Your task to perform on an android device: Search for the new nike air max 270 on Nike.com Image 0: 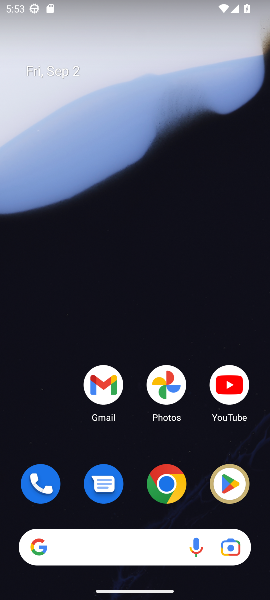
Step 0: click (174, 482)
Your task to perform on an android device: Search for the new nike air max 270 on Nike.com Image 1: 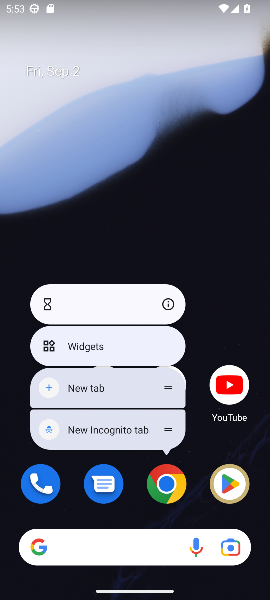
Step 1: click (169, 482)
Your task to perform on an android device: Search for the new nike air max 270 on Nike.com Image 2: 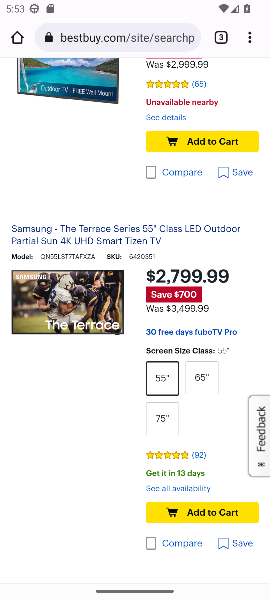
Step 2: click (147, 37)
Your task to perform on an android device: Search for the new nike air max 270 on Nike.com Image 3: 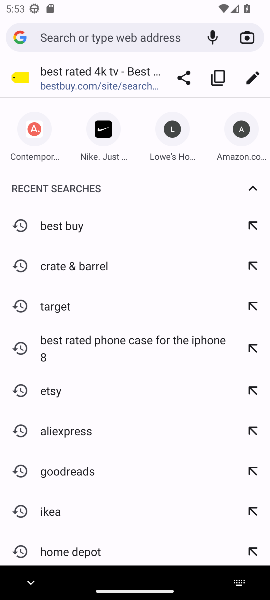
Step 3: type "Nike.com"
Your task to perform on an android device: Search for the new nike air max 270 on Nike.com Image 4: 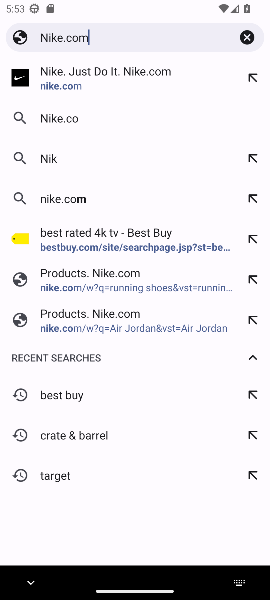
Step 4: press enter
Your task to perform on an android device: Search for the new nike air max 270 on Nike.com Image 5: 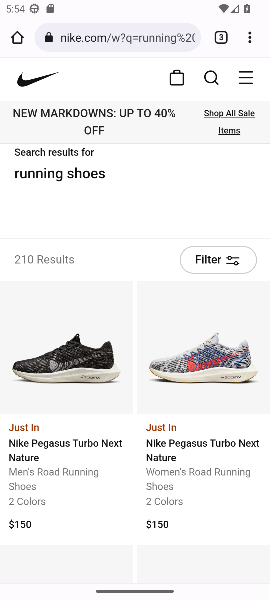
Step 5: click (209, 76)
Your task to perform on an android device: Search for the new nike air max 270 on Nike.com Image 6: 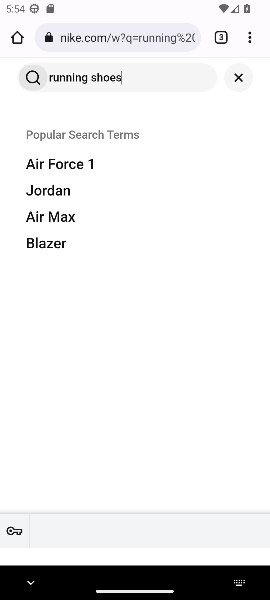
Step 6: click (238, 78)
Your task to perform on an android device: Search for the new nike air max 270 on Nike.com Image 7: 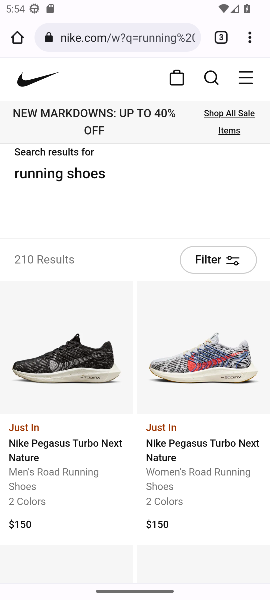
Step 7: click (204, 78)
Your task to perform on an android device: Search for the new nike air max 270 on Nike.com Image 8: 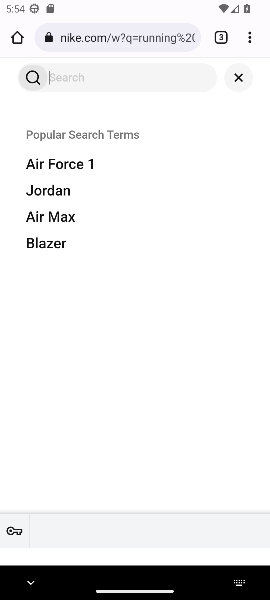
Step 8: type "air max 270"
Your task to perform on an android device: Search for the new nike air max 270 on Nike.com Image 9: 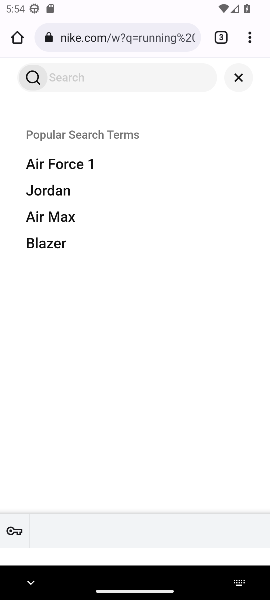
Step 9: press enter
Your task to perform on an android device: Search for the new nike air max 270 on Nike.com Image 10: 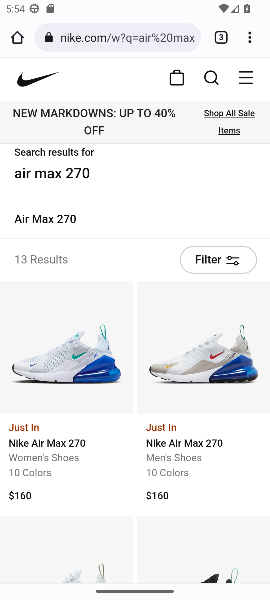
Step 10: task complete